Your task to perform on an android device: See recent photos Image 0: 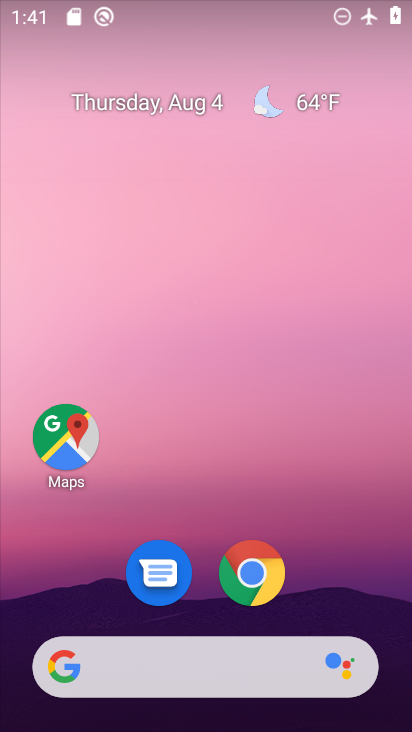
Step 0: drag from (346, 567) to (338, 50)
Your task to perform on an android device: See recent photos Image 1: 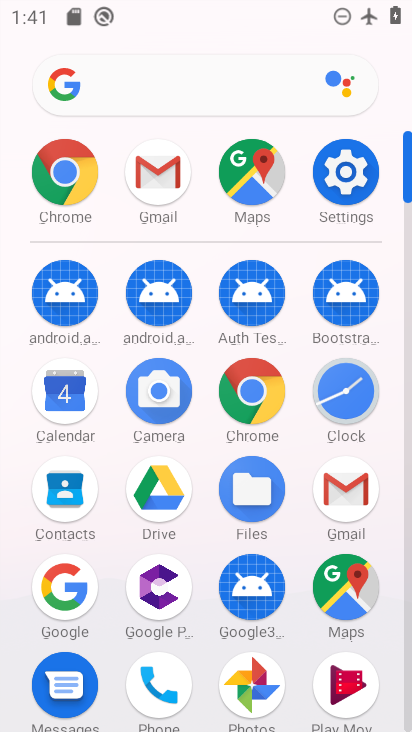
Step 1: drag from (298, 555) to (317, 213)
Your task to perform on an android device: See recent photos Image 2: 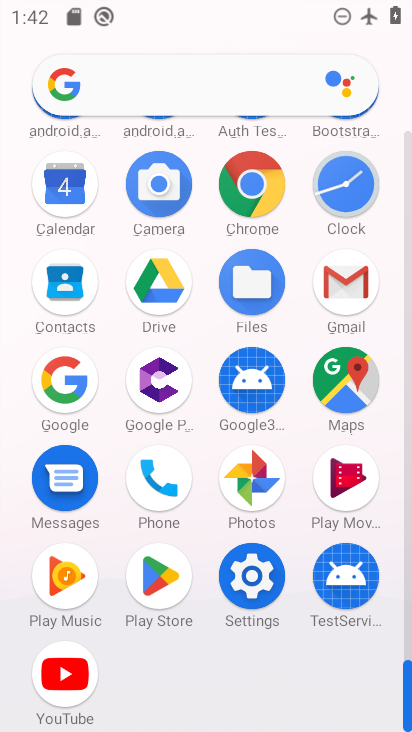
Step 2: click (265, 464)
Your task to perform on an android device: See recent photos Image 3: 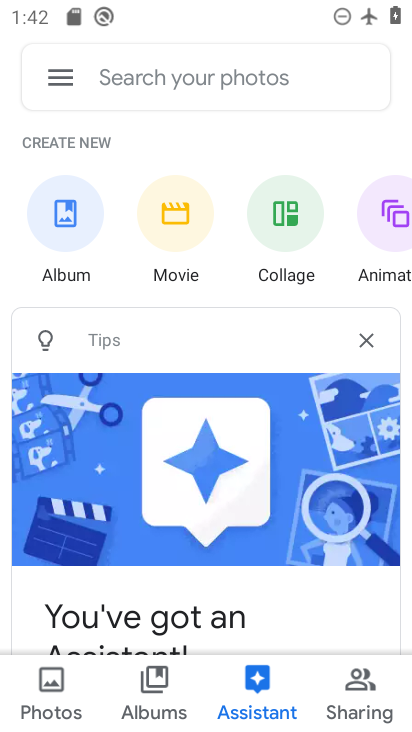
Step 3: click (61, 711)
Your task to perform on an android device: See recent photos Image 4: 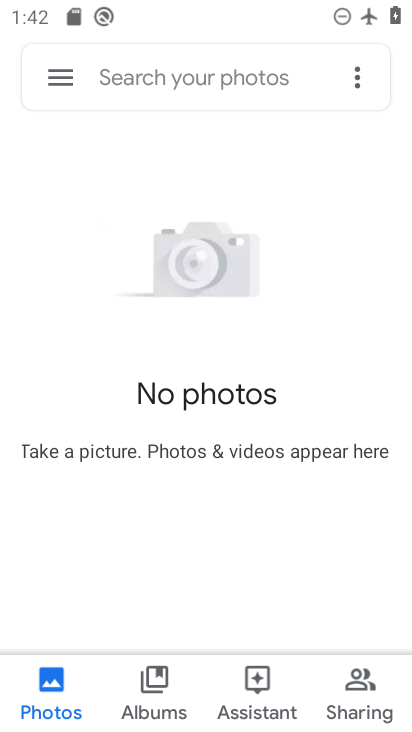
Step 4: task complete